Your task to perform on an android device: Open notification settings Image 0: 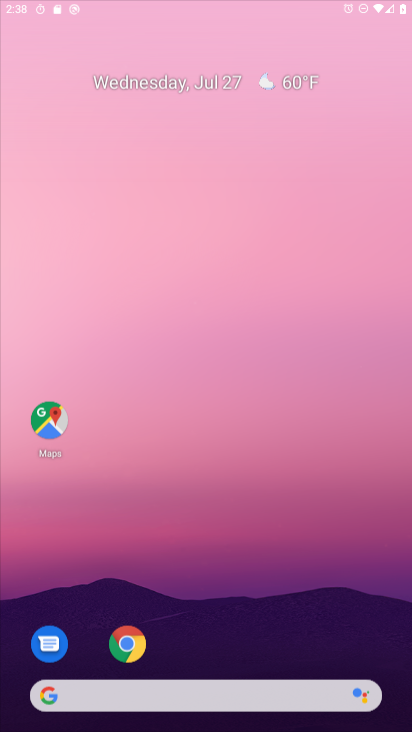
Step 0: drag from (191, 311) to (210, 231)
Your task to perform on an android device: Open notification settings Image 1: 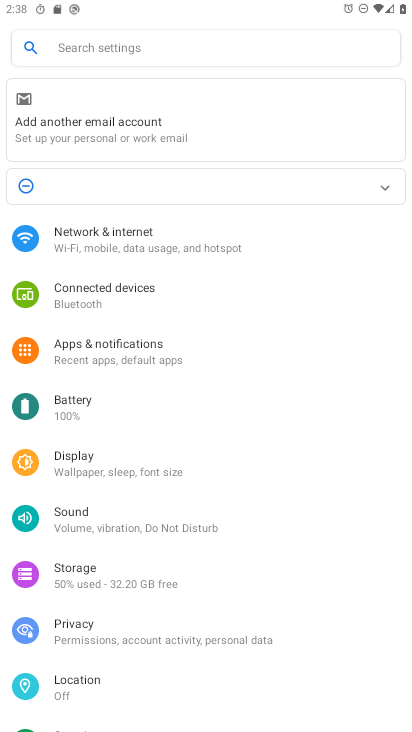
Step 1: press home button
Your task to perform on an android device: Open notification settings Image 2: 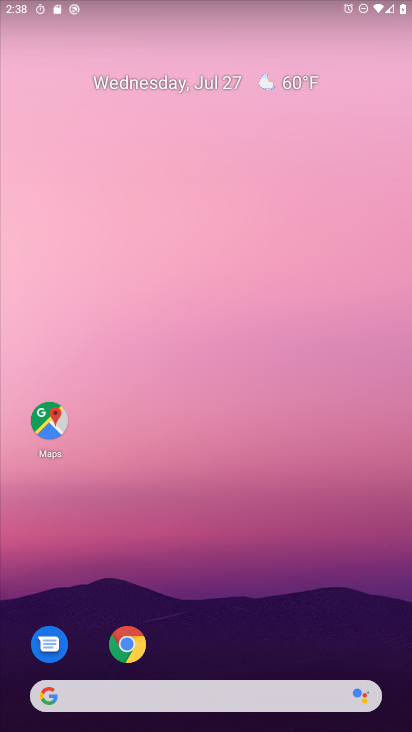
Step 2: drag from (183, 568) to (228, 24)
Your task to perform on an android device: Open notification settings Image 3: 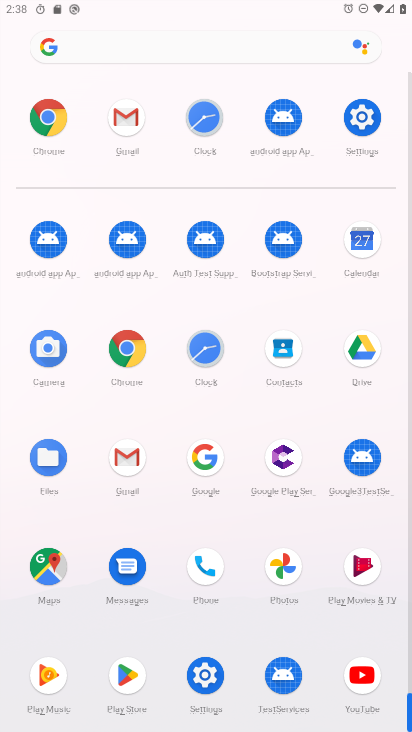
Step 3: click (202, 669)
Your task to perform on an android device: Open notification settings Image 4: 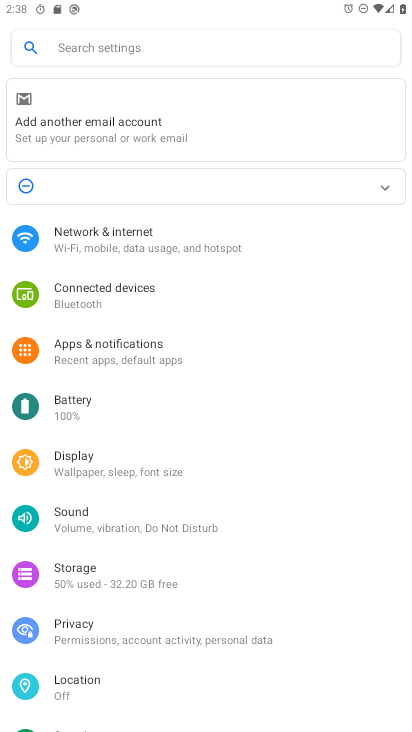
Step 4: click (121, 354)
Your task to perform on an android device: Open notification settings Image 5: 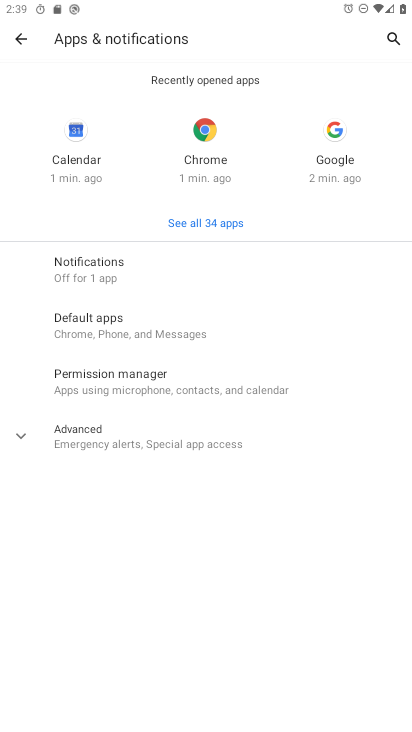
Step 5: click (108, 277)
Your task to perform on an android device: Open notification settings Image 6: 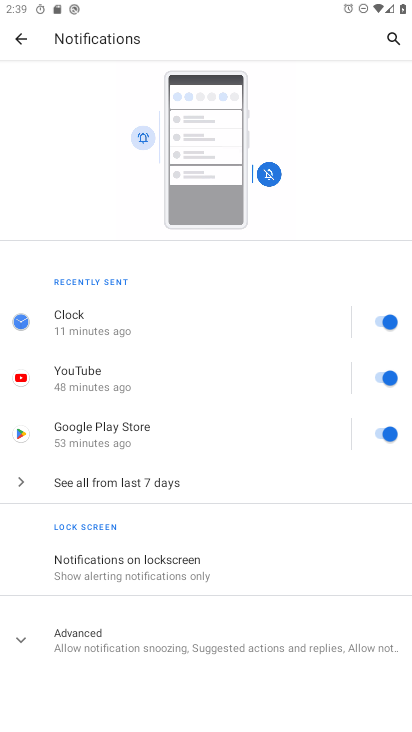
Step 6: task complete